Your task to perform on an android device: create a new album in the google photos Image 0: 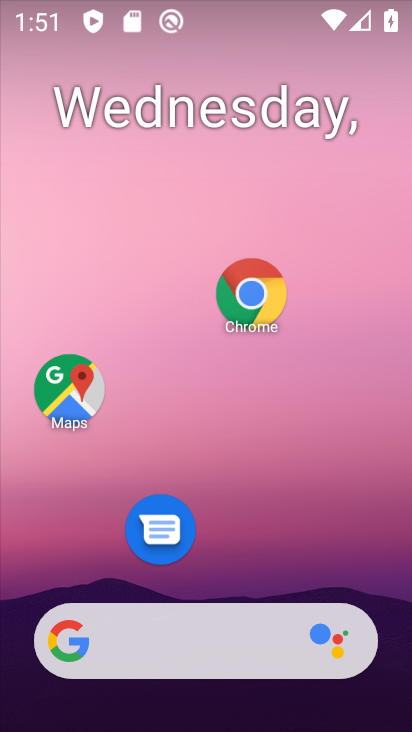
Step 0: drag from (267, 585) to (337, 187)
Your task to perform on an android device: create a new album in the google photos Image 1: 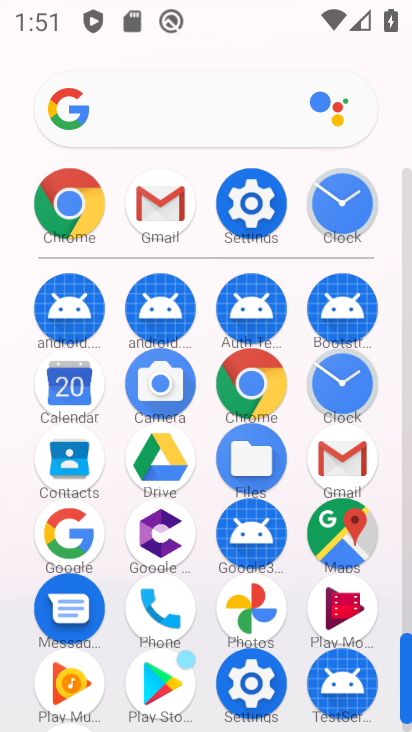
Step 1: click (262, 596)
Your task to perform on an android device: create a new album in the google photos Image 2: 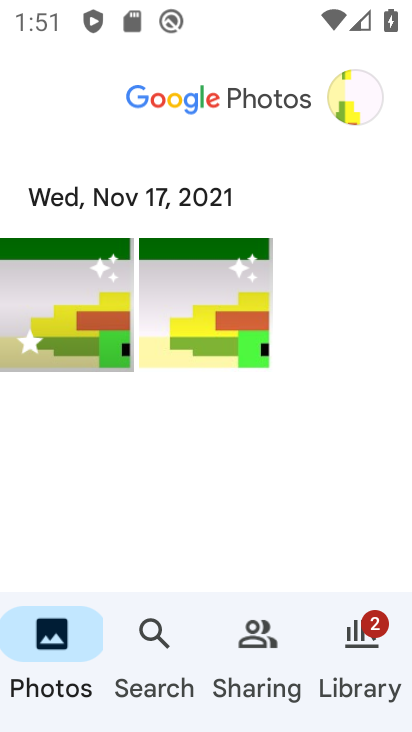
Step 2: click (385, 671)
Your task to perform on an android device: create a new album in the google photos Image 3: 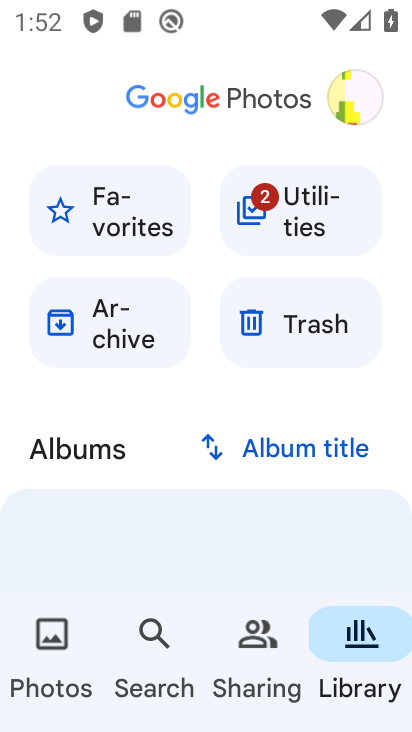
Step 3: drag from (275, 535) to (297, 381)
Your task to perform on an android device: create a new album in the google photos Image 4: 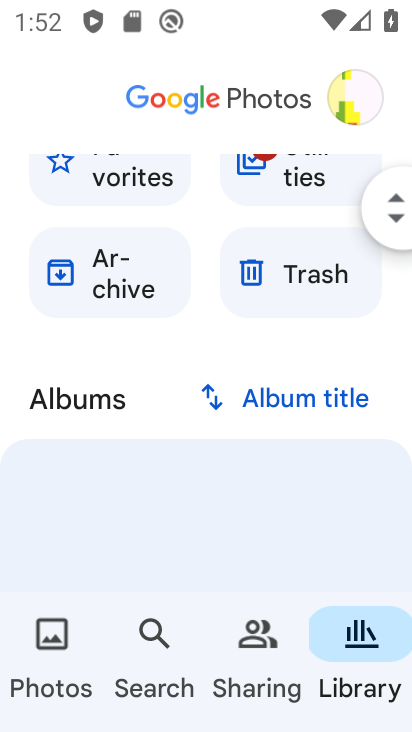
Step 4: drag from (210, 572) to (197, 308)
Your task to perform on an android device: create a new album in the google photos Image 5: 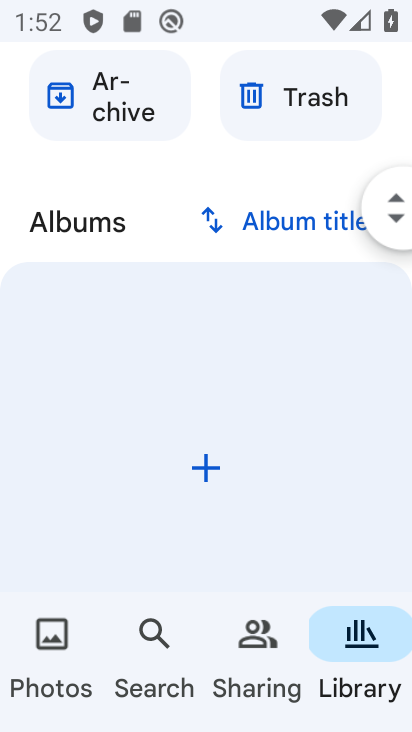
Step 5: click (196, 475)
Your task to perform on an android device: create a new album in the google photos Image 6: 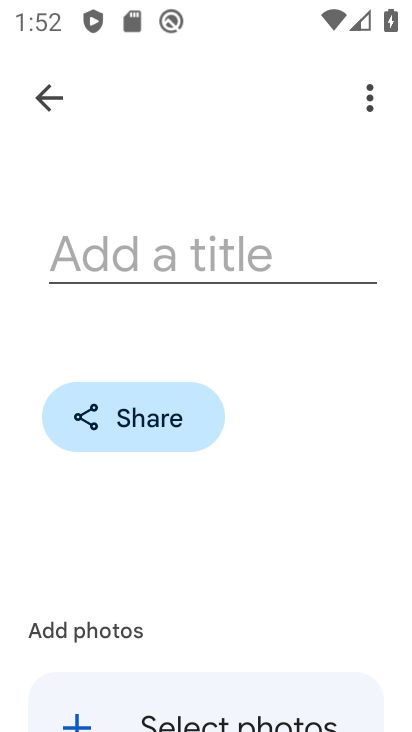
Step 6: click (231, 266)
Your task to perform on an android device: create a new album in the google photos Image 7: 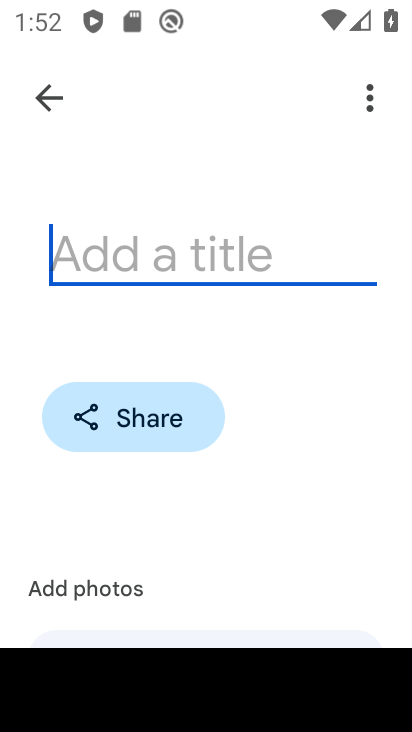
Step 7: type "sonuuuu"
Your task to perform on an android device: create a new album in the google photos Image 8: 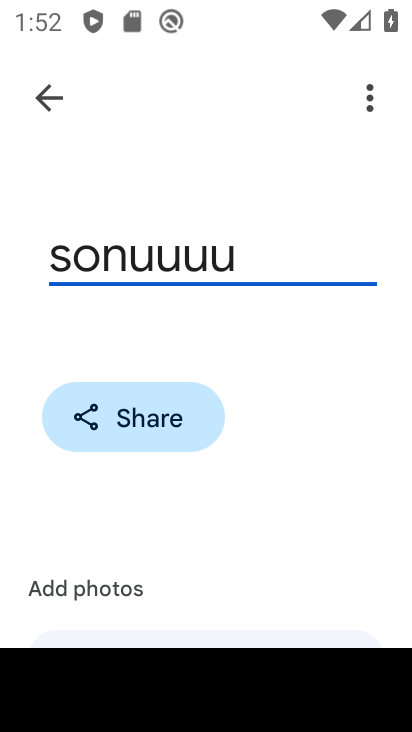
Step 8: drag from (377, 533) to (375, 376)
Your task to perform on an android device: create a new album in the google photos Image 9: 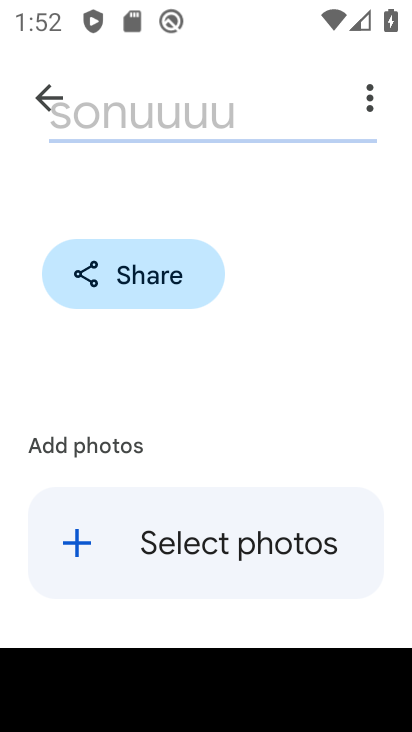
Step 9: click (87, 544)
Your task to perform on an android device: create a new album in the google photos Image 10: 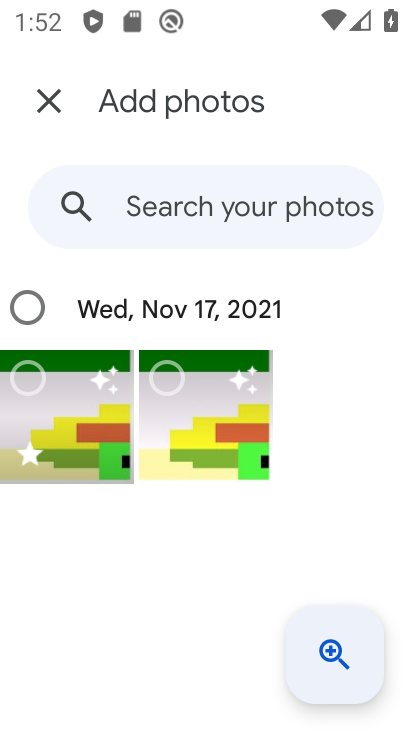
Step 10: click (36, 389)
Your task to perform on an android device: create a new album in the google photos Image 11: 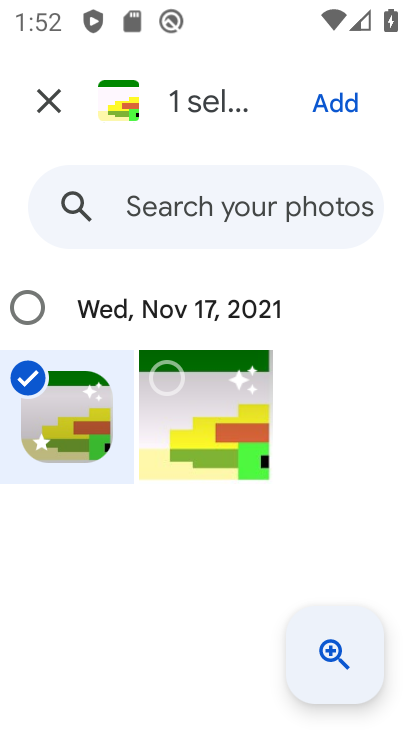
Step 11: click (352, 114)
Your task to perform on an android device: create a new album in the google photos Image 12: 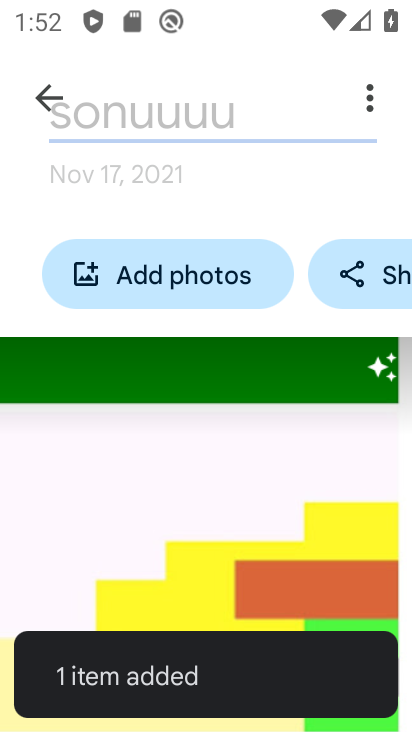
Step 12: drag from (257, 452) to (260, 390)
Your task to perform on an android device: create a new album in the google photos Image 13: 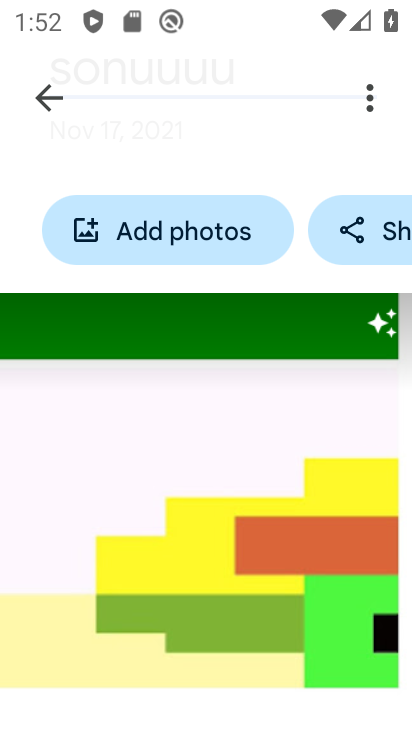
Step 13: click (366, 99)
Your task to perform on an android device: create a new album in the google photos Image 14: 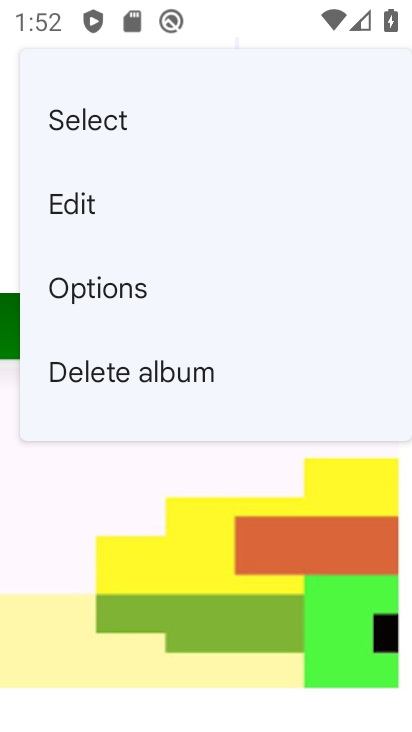
Step 14: task complete